Your task to perform on an android device: turn off sleep mode Image 0: 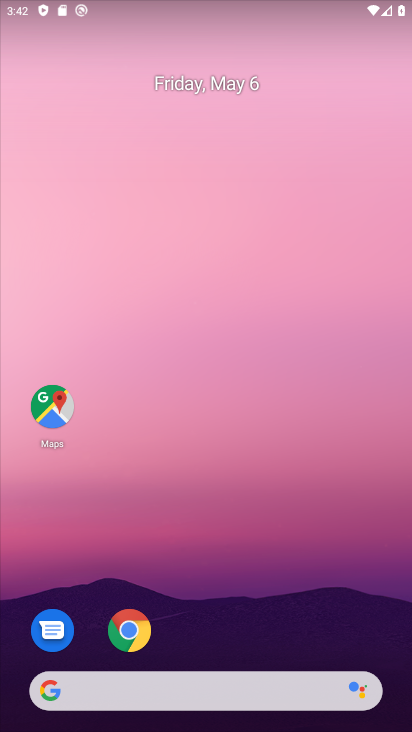
Step 0: drag from (238, 582) to (293, 172)
Your task to perform on an android device: turn off sleep mode Image 1: 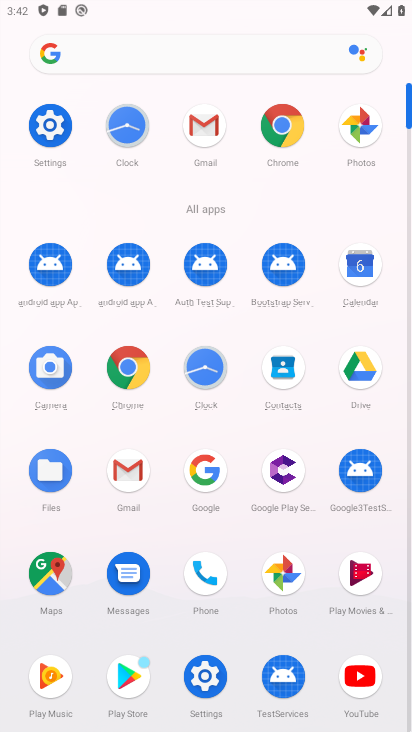
Step 1: click (33, 123)
Your task to perform on an android device: turn off sleep mode Image 2: 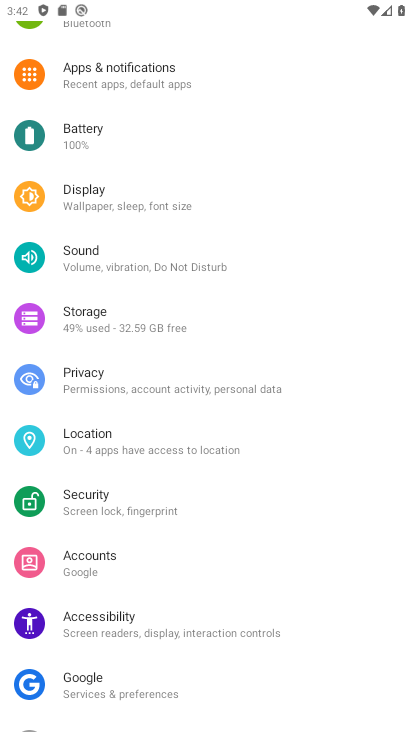
Step 2: drag from (295, 132) to (185, 682)
Your task to perform on an android device: turn off sleep mode Image 3: 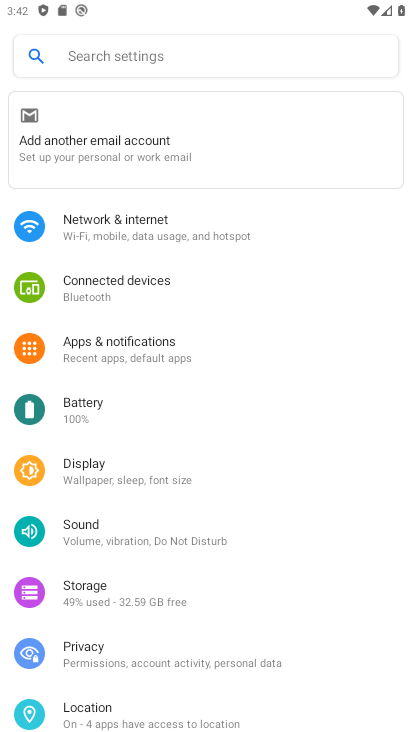
Step 3: click (113, 63)
Your task to perform on an android device: turn off sleep mode Image 4: 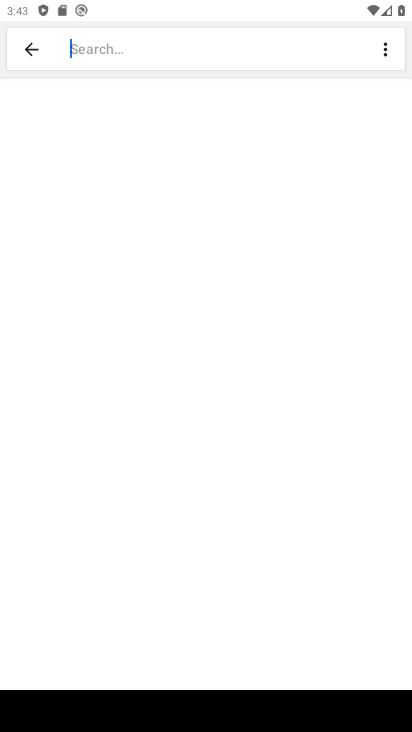
Step 4: type "sleep"
Your task to perform on an android device: turn off sleep mode Image 5: 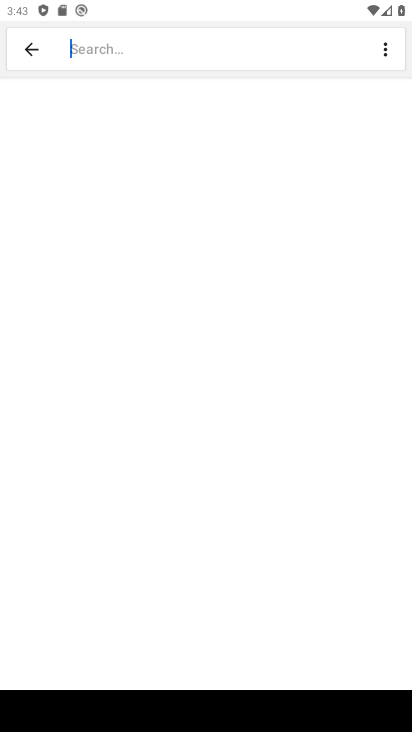
Step 5: click (152, 45)
Your task to perform on an android device: turn off sleep mode Image 6: 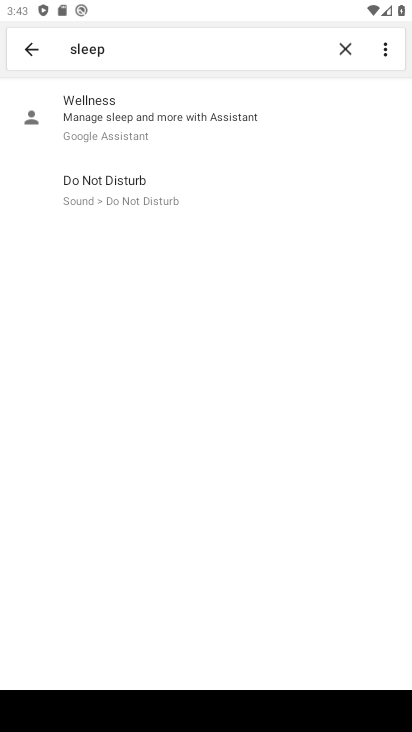
Step 6: type "sleep mode"
Your task to perform on an android device: turn off sleep mode Image 7: 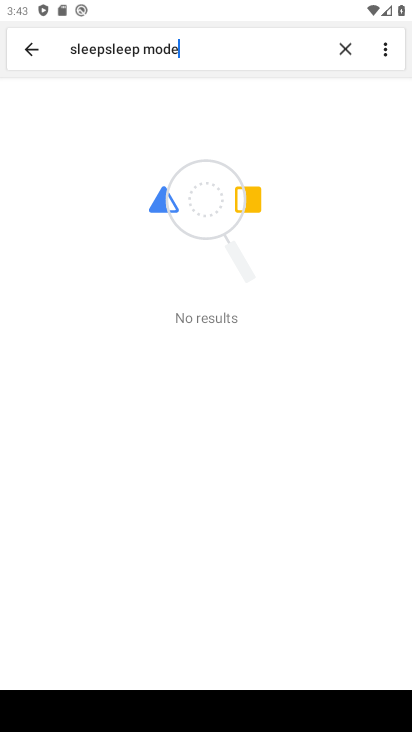
Step 7: task complete